Your task to perform on an android device: open app "Adobe Acrobat Reader" Image 0: 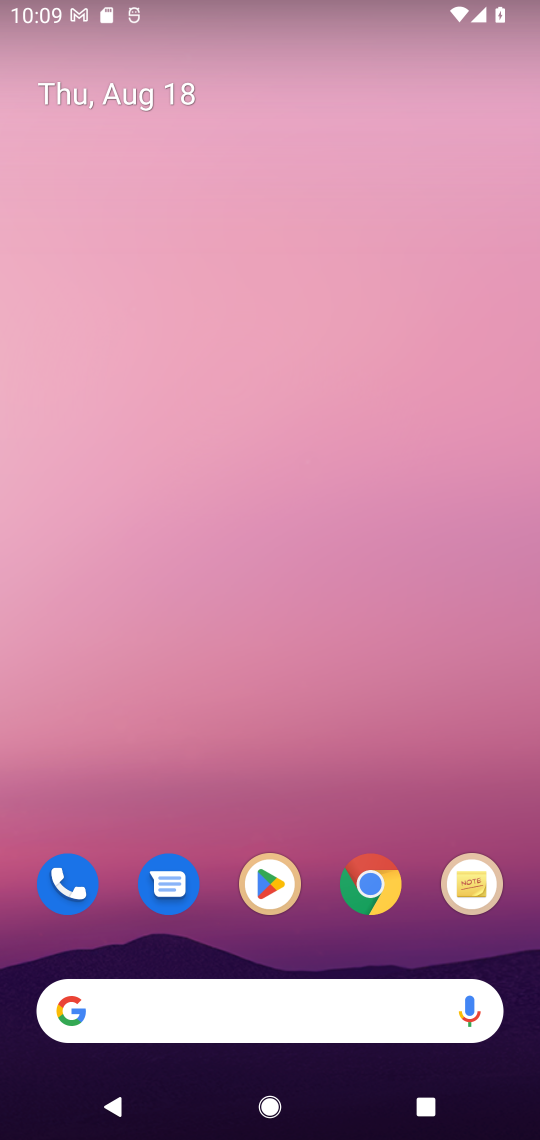
Step 0: click (292, 884)
Your task to perform on an android device: open app "Adobe Acrobat Reader" Image 1: 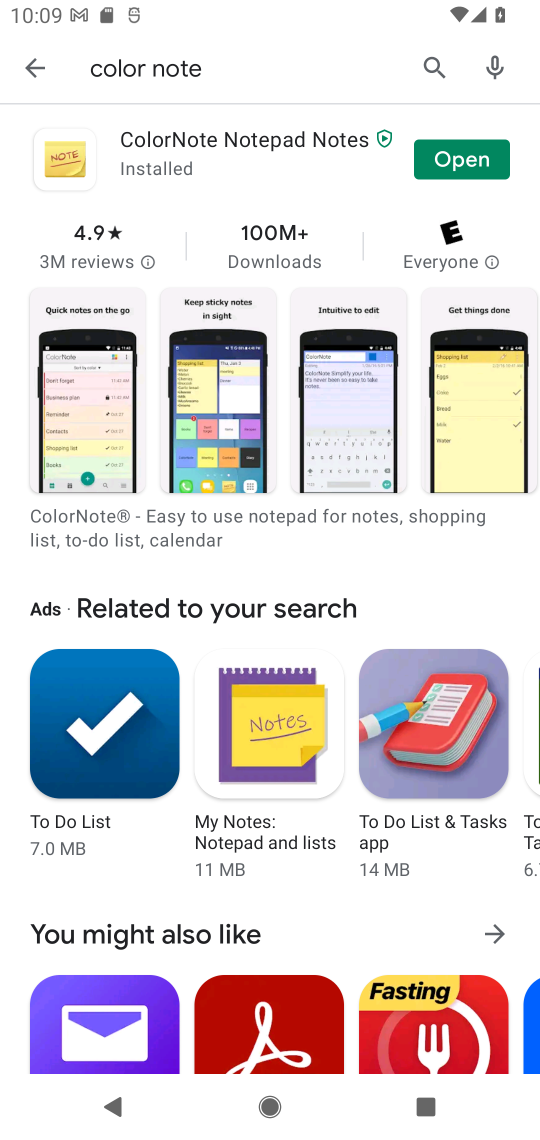
Step 1: press home button
Your task to perform on an android device: open app "Adobe Acrobat Reader" Image 2: 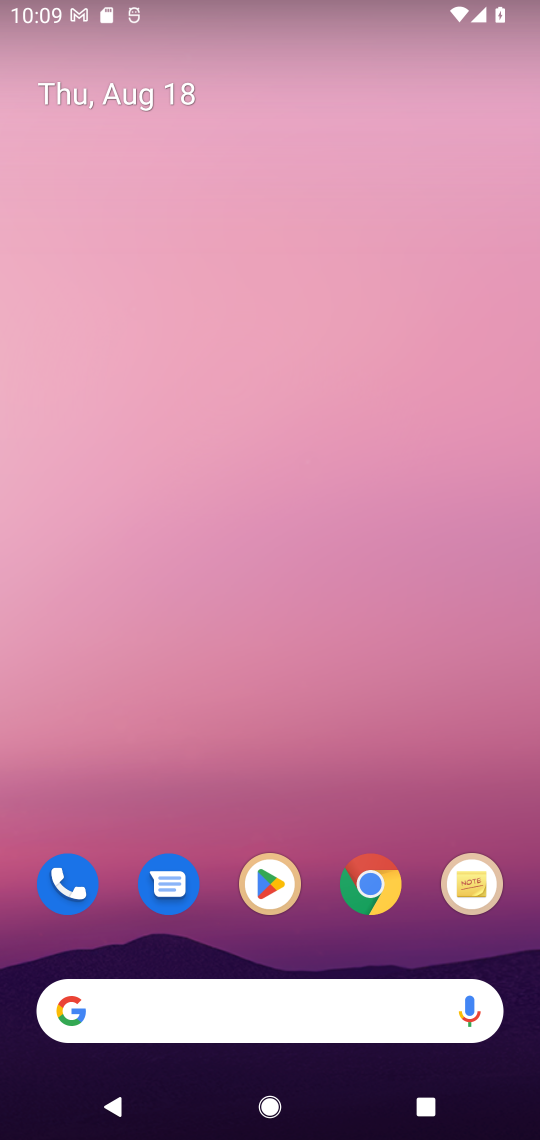
Step 2: drag from (294, 967) to (395, 21)
Your task to perform on an android device: open app "Adobe Acrobat Reader" Image 3: 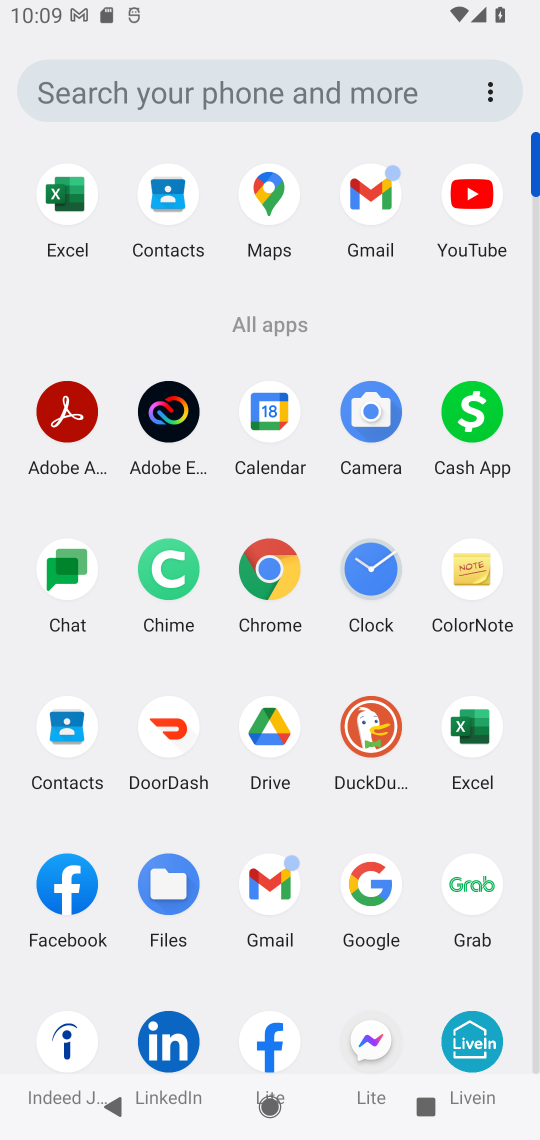
Step 3: click (68, 420)
Your task to perform on an android device: open app "Adobe Acrobat Reader" Image 4: 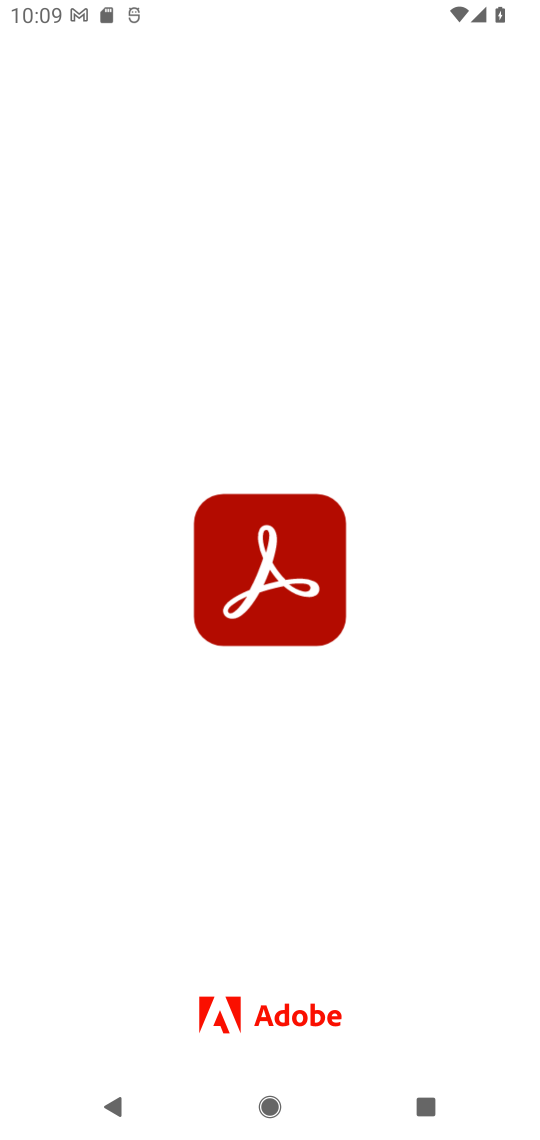
Step 4: task complete